Your task to perform on an android device: Open sound settings Image 0: 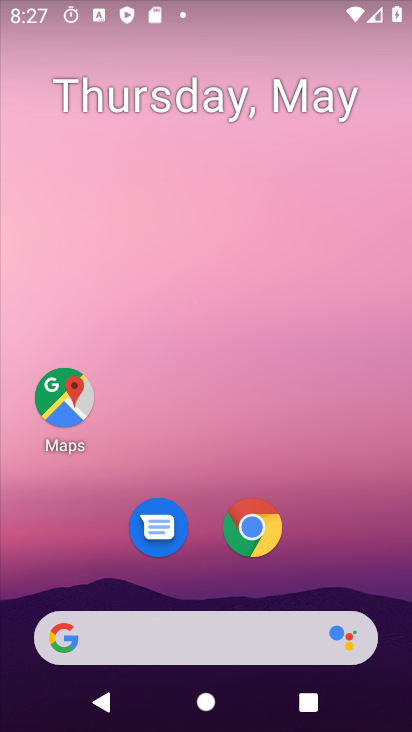
Step 0: drag from (36, 613) to (367, 96)
Your task to perform on an android device: Open sound settings Image 1: 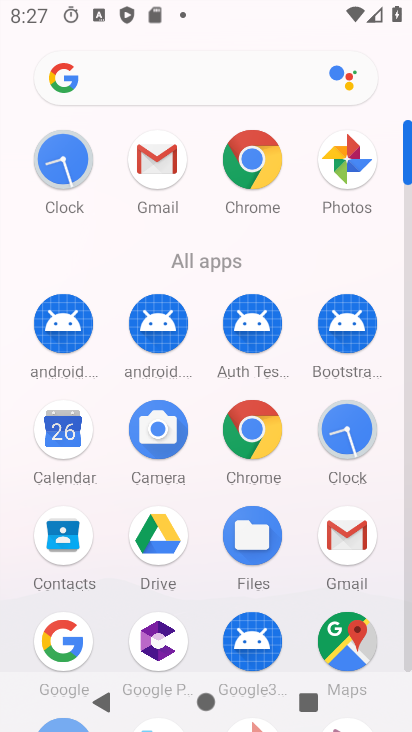
Step 1: drag from (28, 620) to (271, 215)
Your task to perform on an android device: Open sound settings Image 2: 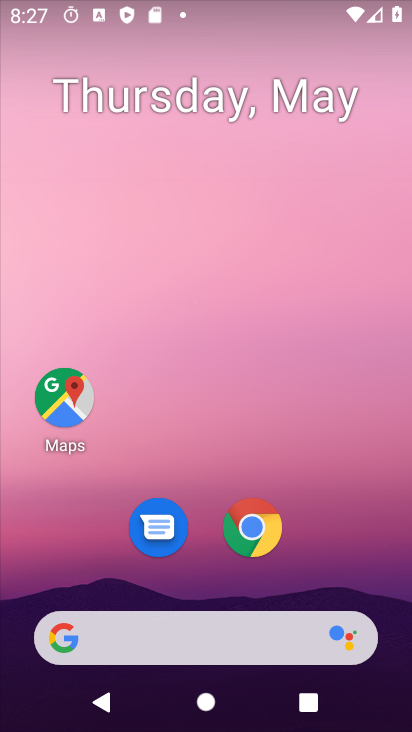
Step 2: drag from (33, 606) to (335, 102)
Your task to perform on an android device: Open sound settings Image 3: 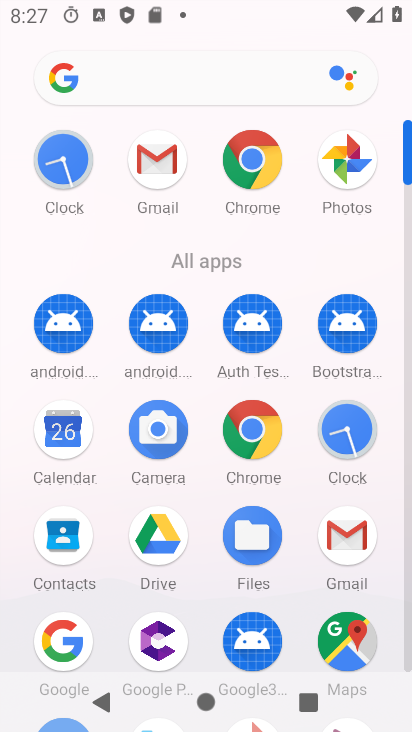
Step 3: drag from (12, 597) to (271, 202)
Your task to perform on an android device: Open sound settings Image 4: 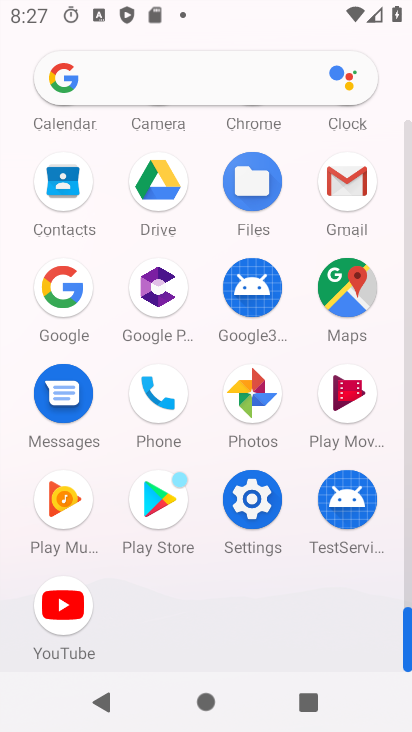
Step 4: click (267, 513)
Your task to perform on an android device: Open sound settings Image 5: 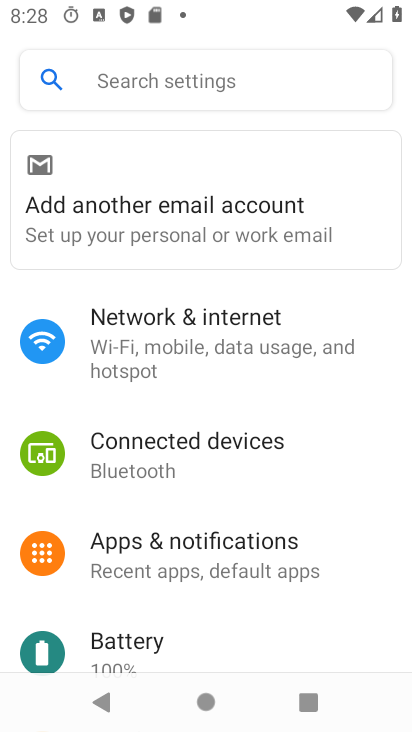
Step 5: drag from (51, 485) to (221, 146)
Your task to perform on an android device: Open sound settings Image 6: 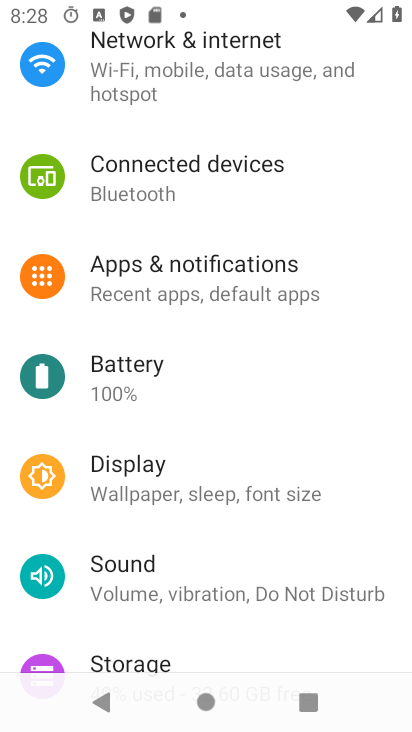
Step 6: click (120, 568)
Your task to perform on an android device: Open sound settings Image 7: 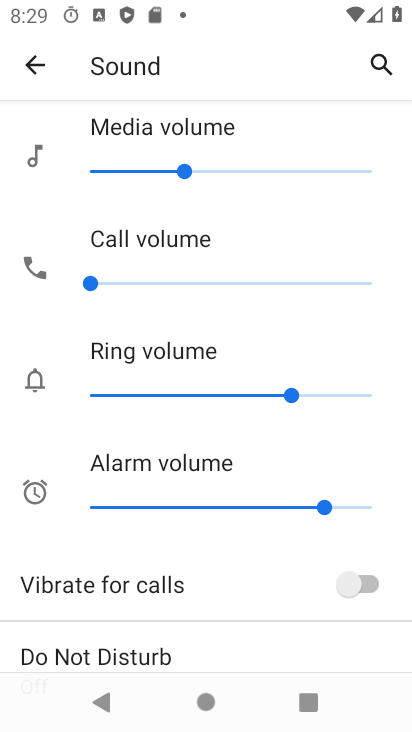
Step 7: task complete